Your task to perform on an android device: turn on sleep mode Image 0: 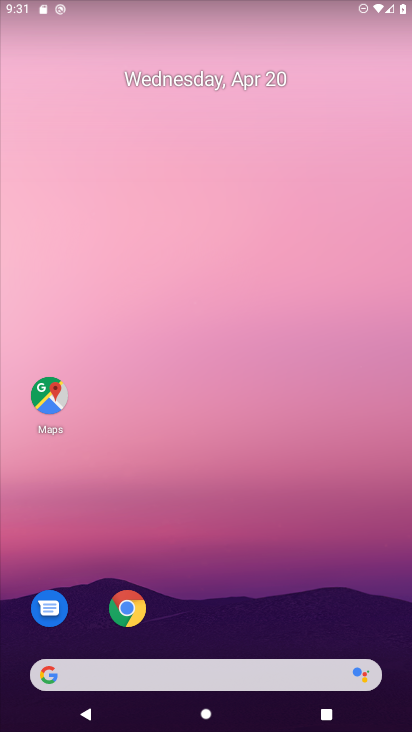
Step 0: drag from (195, 560) to (221, 72)
Your task to perform on an android device: turn on sleep mode Image 1: 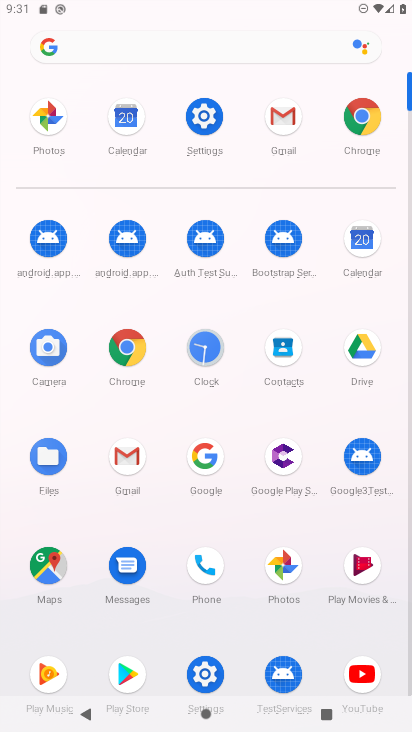
Step 1: click (201, 122)
Your task to perform on an android device: turn on sleep mode Image 2: 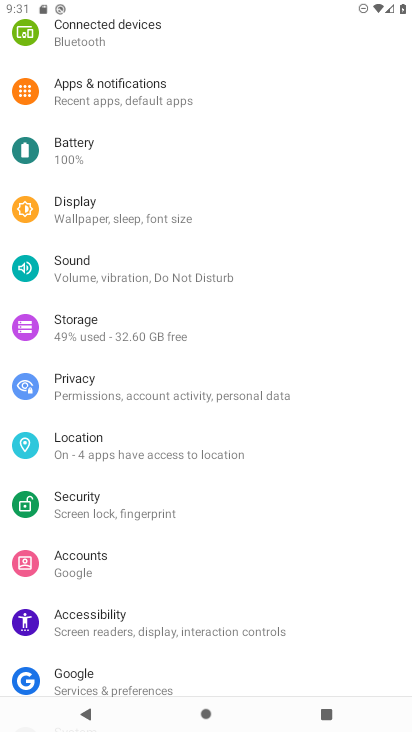
Step 2: drag from (193, 146) to (132, 488)
Your task to perform on an android device: turn on sleep mode Image 3: 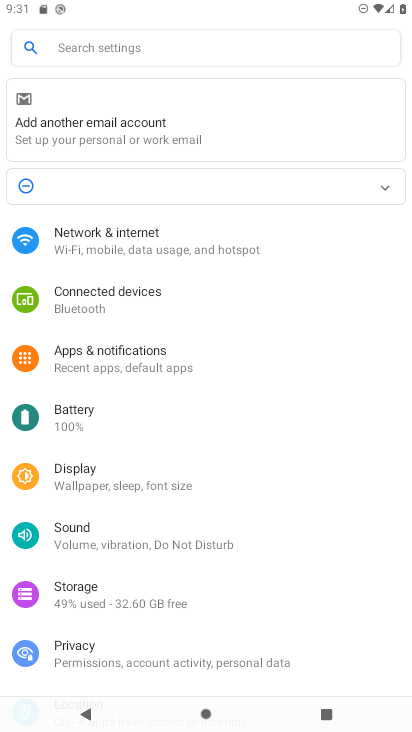
Step 3: click (163, 42)
Your task to perform on an android device: turn on sleep mode Image 4: 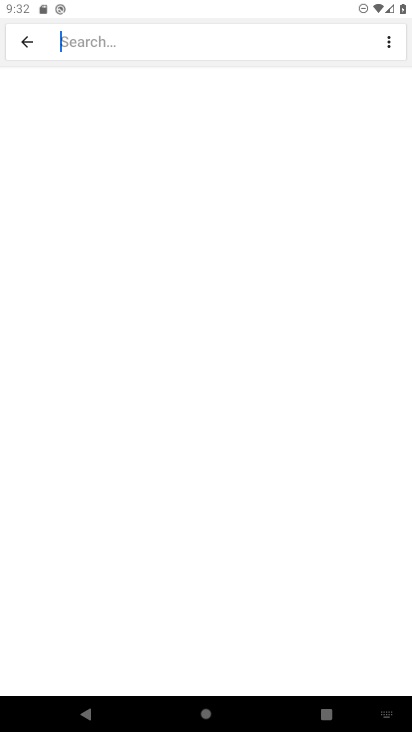
Step 4: type "sleep mode"
Your task to perform on an android device: turn on sleep mode Image 5: 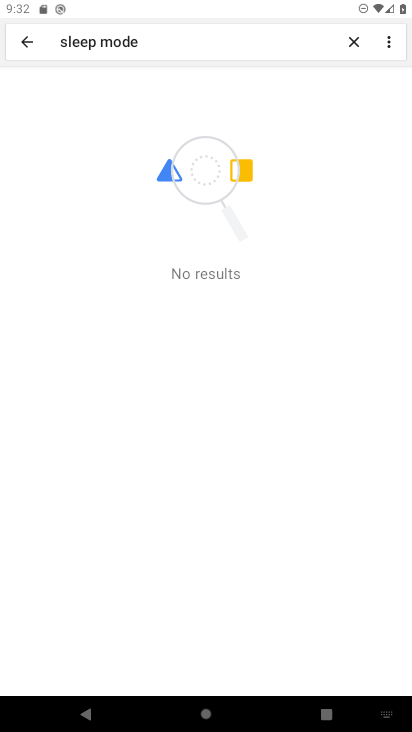
Step 5: task complete